Your task to perform on an android device: View the shopping cart on amazon.com. Add logitech g910 to the cart on amazon.com Image 0: 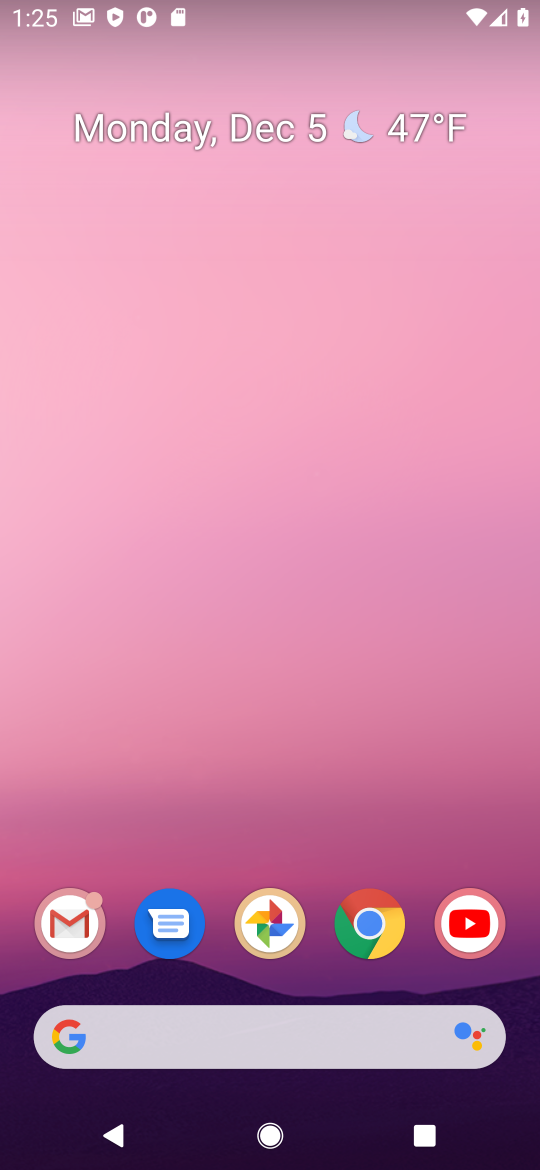
Step 0: click (283, 1034)
Your task to perform on an android device: View the shopping cart on amazon.com. Add logitech g910 to the cart on amazon.com Image 1: 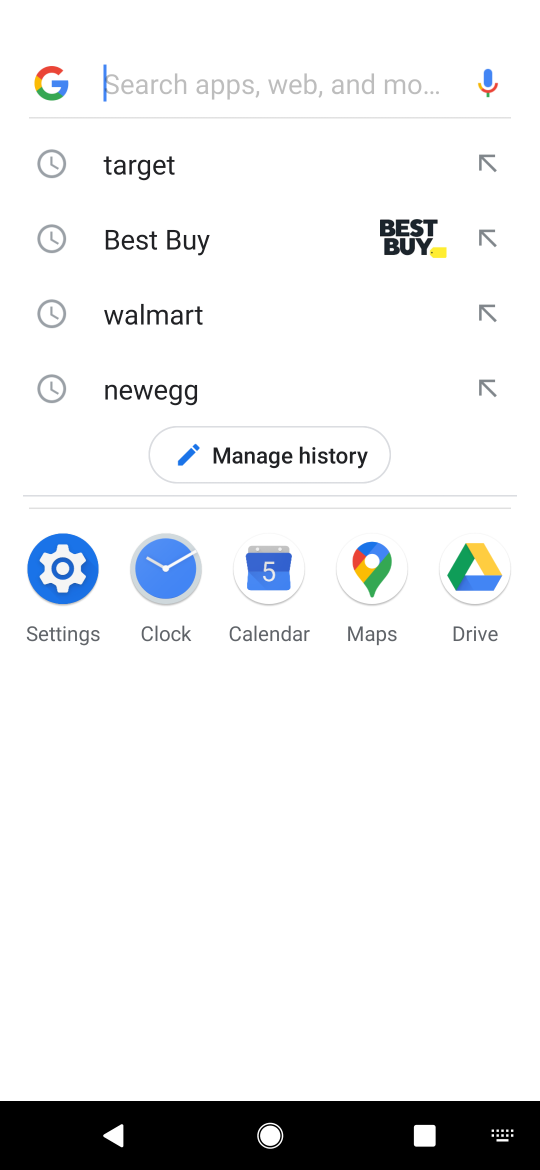
Step 1: type "amazon"
Your task to perform on an android device: View the shopping cart on amazon.com. Add logitech g910 to the cart on amazon.com Image 2: 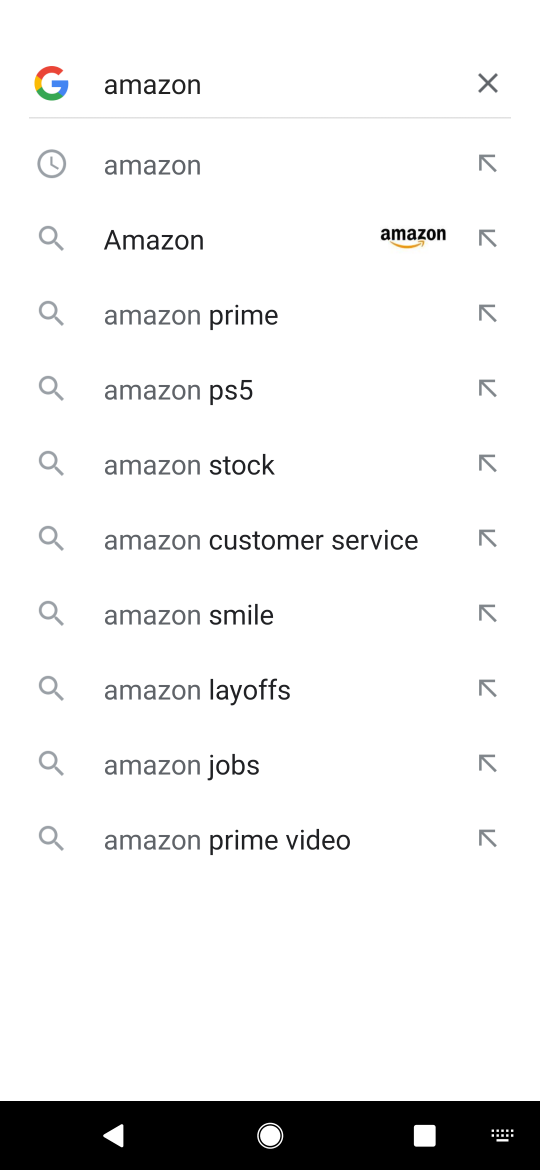
Step 2: click (223, 178)
Your task to perform on an android device: View the shopping cart on amazon.com. Add logitech g910 to the cart on amazon.com Image 3: 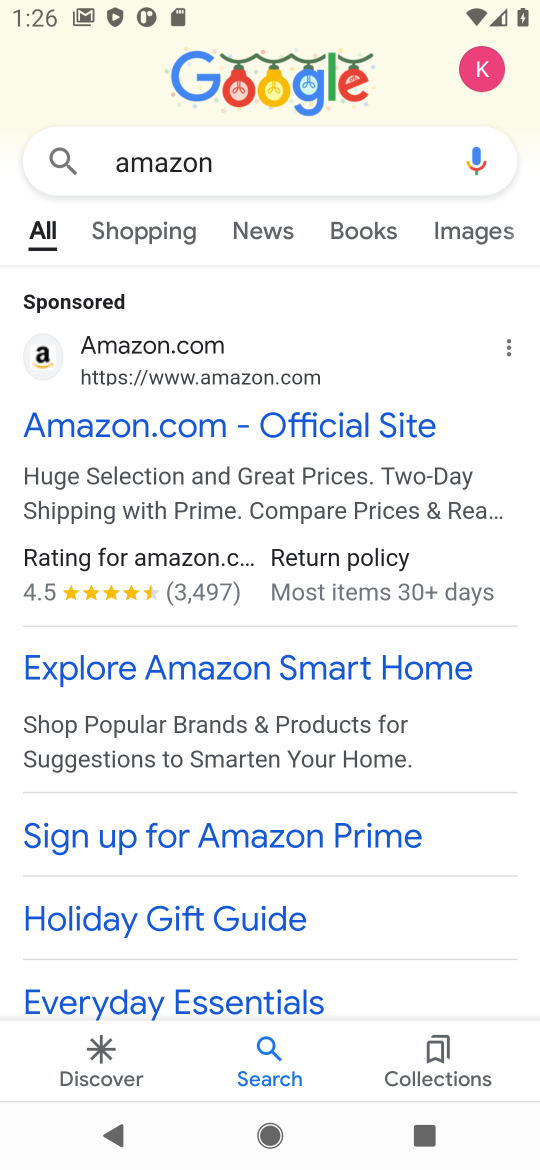
Step 3: click (292, 420)
Your task to perform on an android device: View the shopping cart on amazon.com. Add logitech g910 to the cart on amazon.com Image 4: 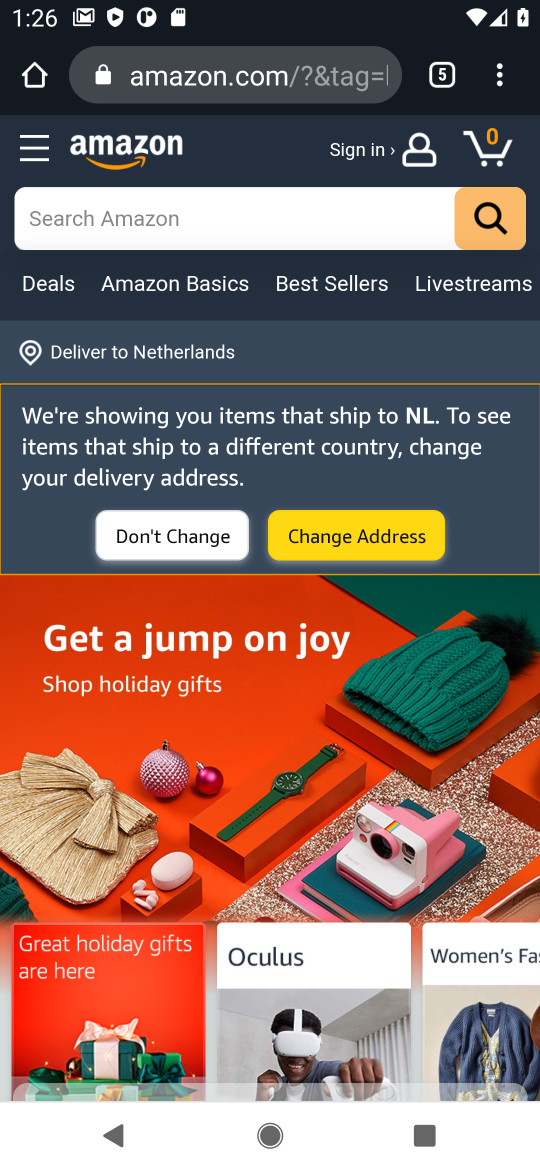
Step 4: task complete